Your task to perform on an android device: Open maps Image 0: 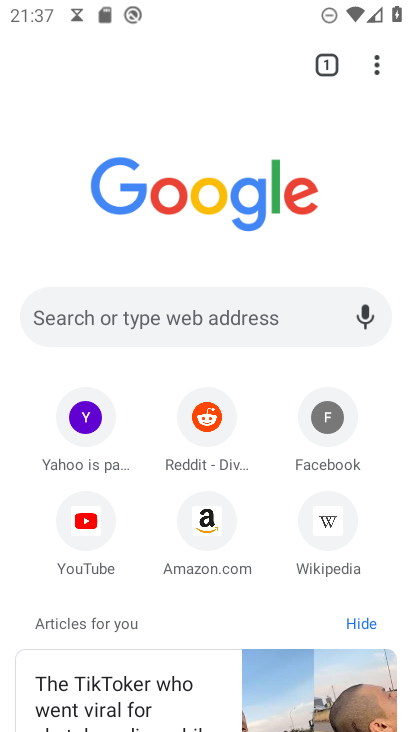
Step 0: press home button
Your task to perform on an android device: Open maps Image 1: 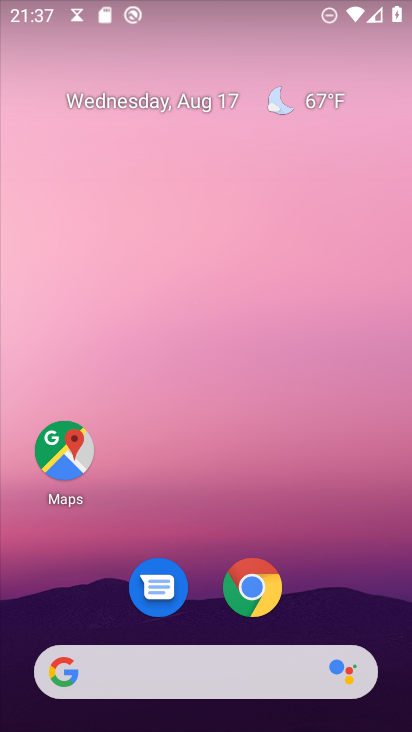
Step 1: click (66, 466)
Your task to perform on an android device: Open maps Image 2: 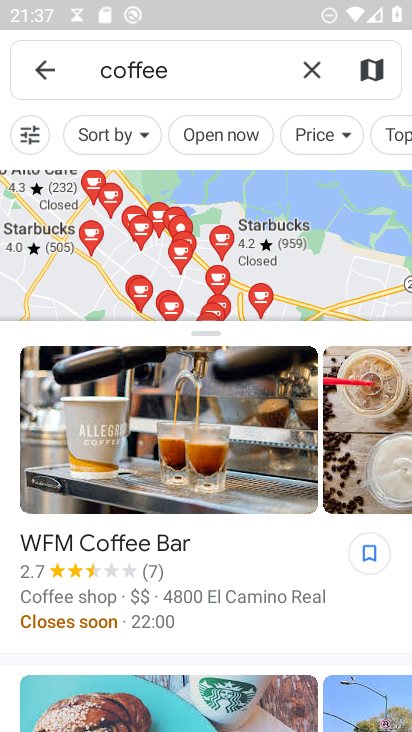
Step 2: task complete